Your task to perform on an android device: turn off smart reply in the gmail app Image 0: 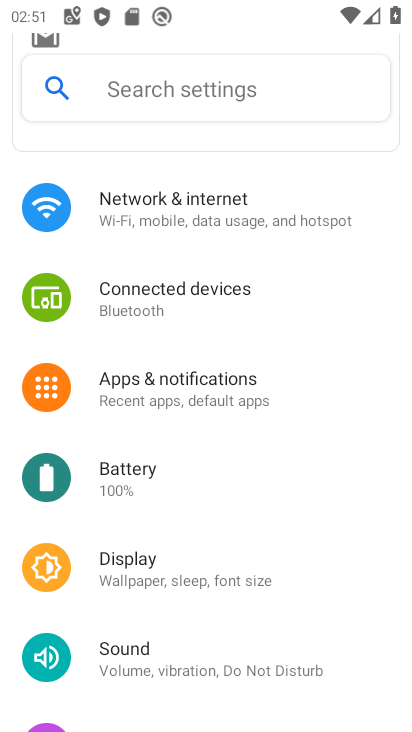
Step 0: press home button
Your task to perform on an android device: turn off smart reply in the gmail app Image 1: 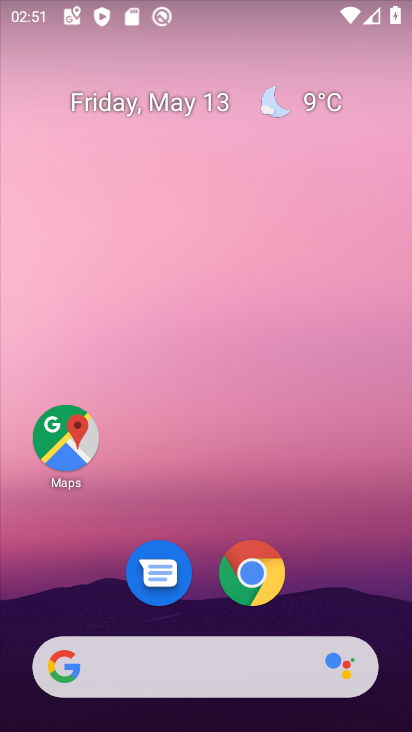
Step 1: drag from (322, 515) to (290, 27)
Your task to perform on an android device: turn off smart reply in the gmail app Image 2: 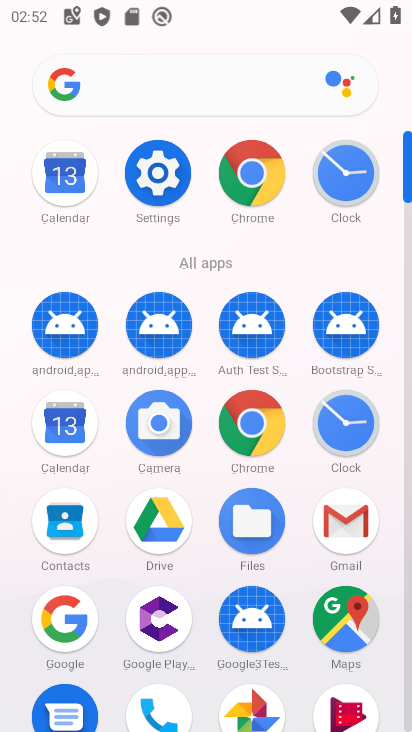
Step 2: click (345, 523)
Your task to perform on an android device: turn off smart reply in the gmail app Image 3: 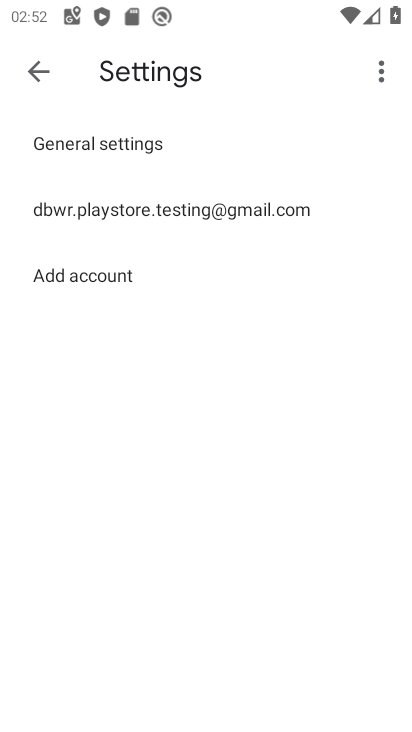
Step 3: click (185, 215)
Your task to perform on an android device: turn off smart reply in the gmail app Image 4: 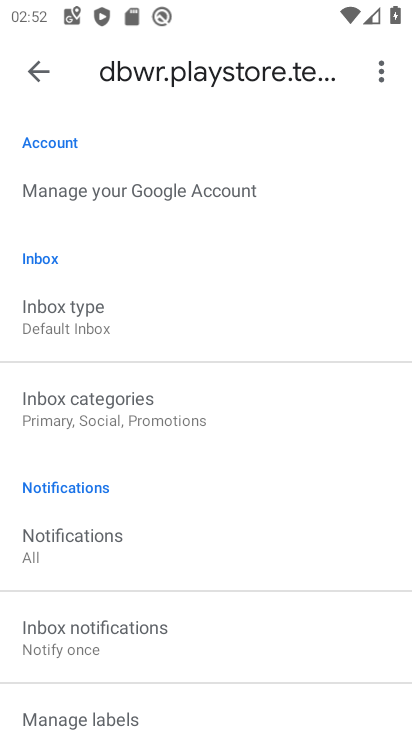
Step 4: drag from (169, 526) to (187, 448)
Your task to perform on an android device: turn off smart reply in the gmail app Image 5: 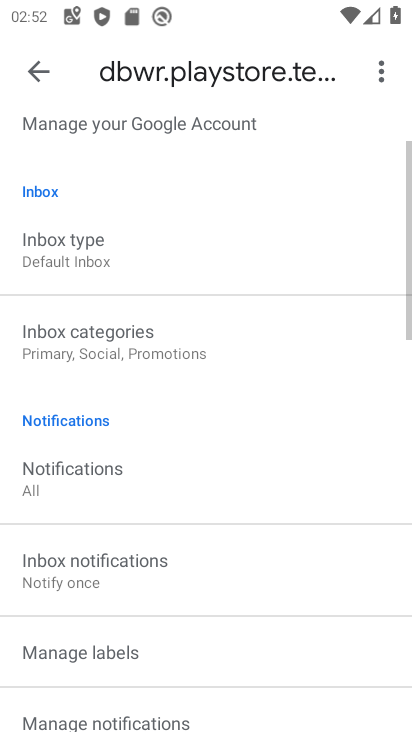
Step 5: drag from (165, 572) to (192, 506)
Your task to perform on an android device: turn off smart reply in the gmail app Image 6: 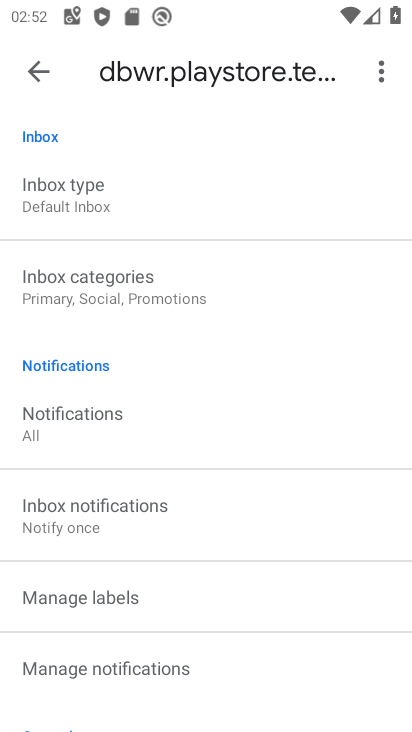
Step 6: drag from (149, 580) to (151, 469)
Your task to perform on an android device: turn off smart reply in the gmail app Image 7: 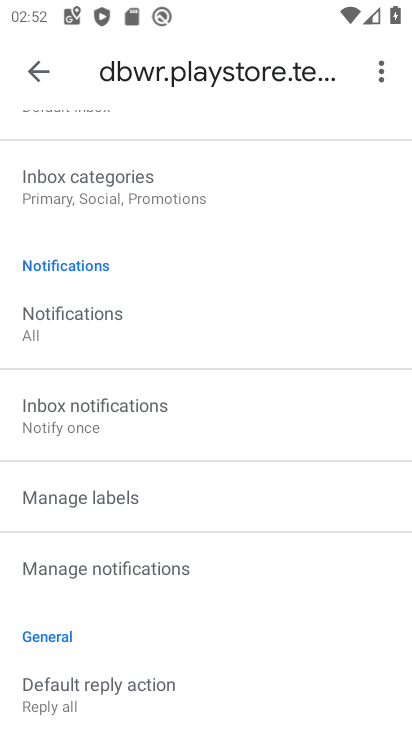
Step 7: drag from (135, 626) to (167, 523)
Your task to perform on an android device: turn off smart reply in the gmail app Image 8: 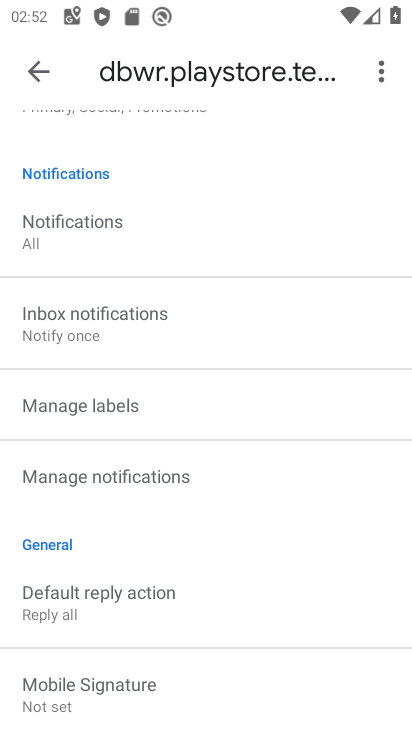
Step 8: drag from (147, 631) to (197, 523)
Your task to perform on an android device: turn off smart reply in the gmail app Image 9: 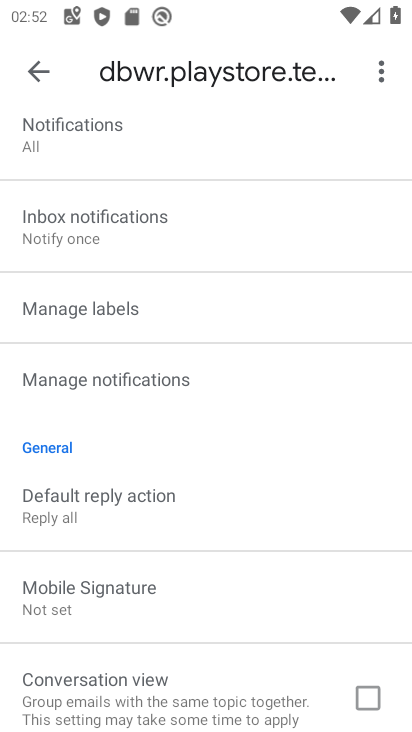
Step 9: drag from (152, 618) to (157, 522)
Your task to perform on an android device: turn off smart reply in the gmail app Image 10: 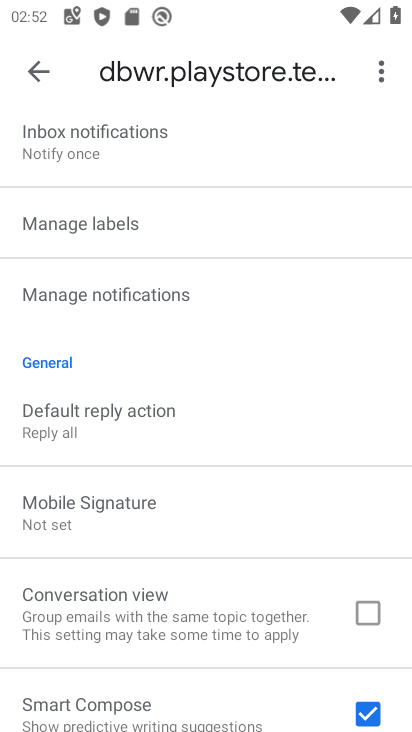
Step 10: drag from (137, 682) to (149, 547)
Your task to perform on an android device: turn off smart reply in the gmail app Image 11: 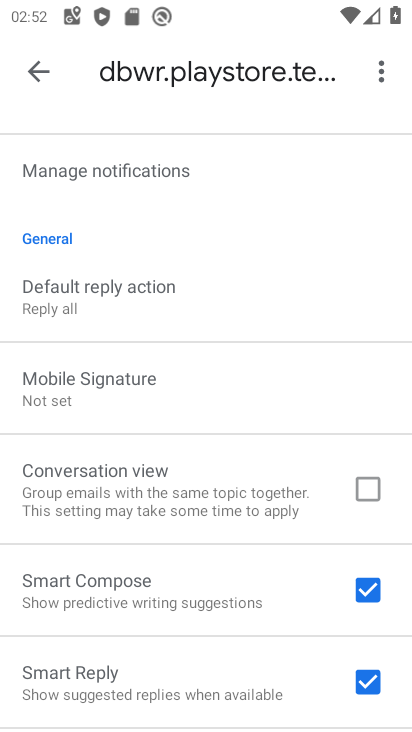
Step 11: drag from (161, 672) to (187, 526)
Your task to perform on an android device: turn off smart reply in the gmail app Image 12: 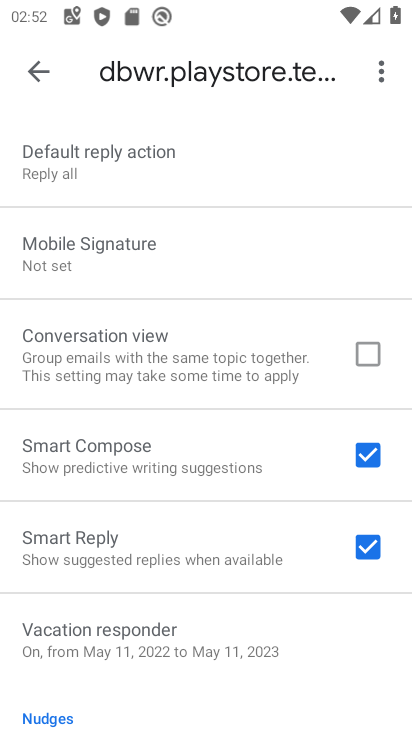
Step 12: click (365, 552)
Your task to perform on an android device: turn off smart reply in the gmail app Image 13: 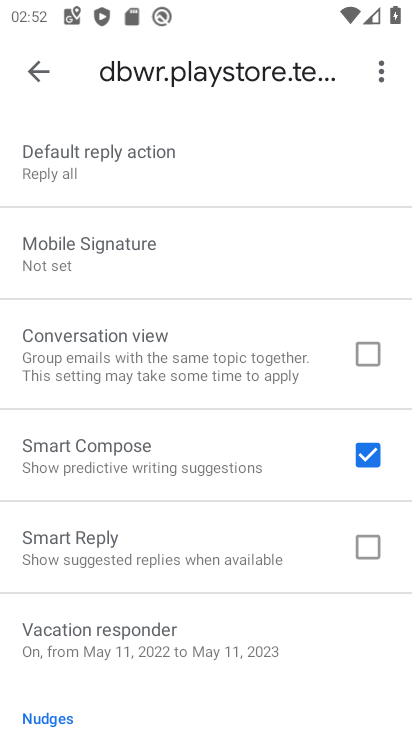
Step 13: task complete